Your task to perform on an android device: all mails in gmail Image 0: 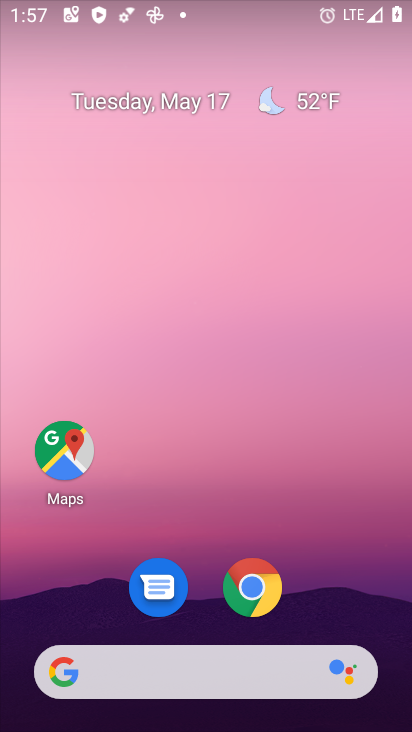
Step 0: drag from (360, 628) to (374, 134)
Your task to perform on an android device: all mails in gmail Image 1: 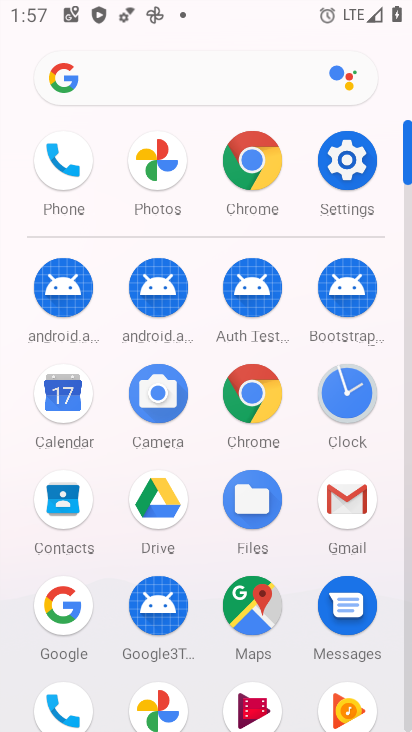
Step 1: click (338, 495)
Your task to perform on an android device: all mails in gmail Image 2: 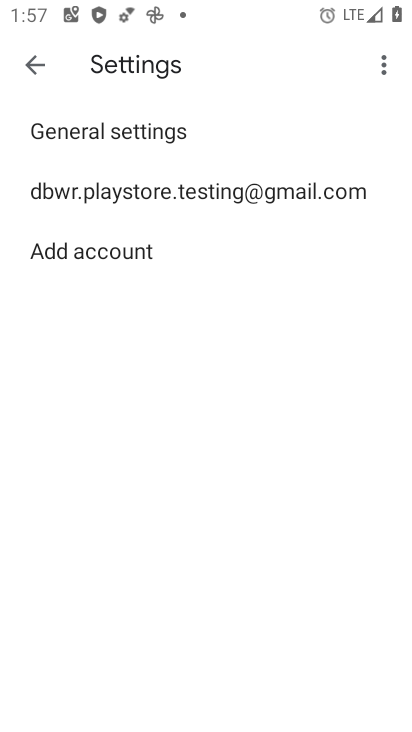
Step 2: press home button
Your task to perform on an android device: all mails in gmail Image 3: 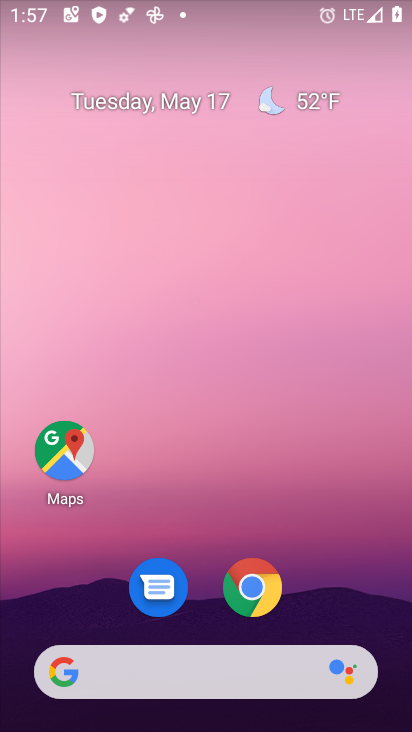
Step 3: drag from (351, 574) to (348, 173)
Your task to perform on an android device: all mails in gmail Image 4: 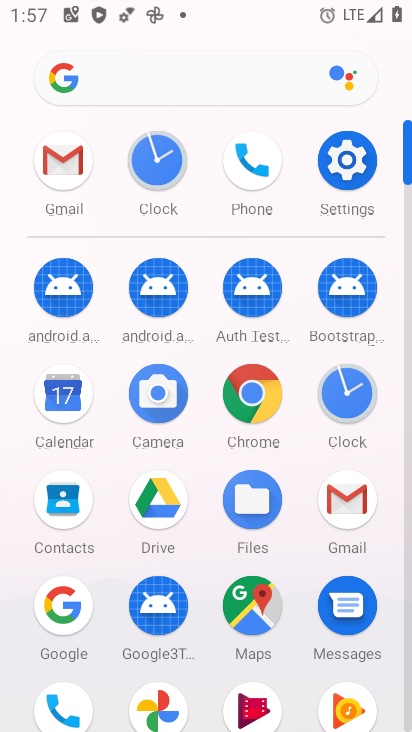
Step 4: click (67, 162)
Your task to perform on an android device: all mails in gmail Image 5: 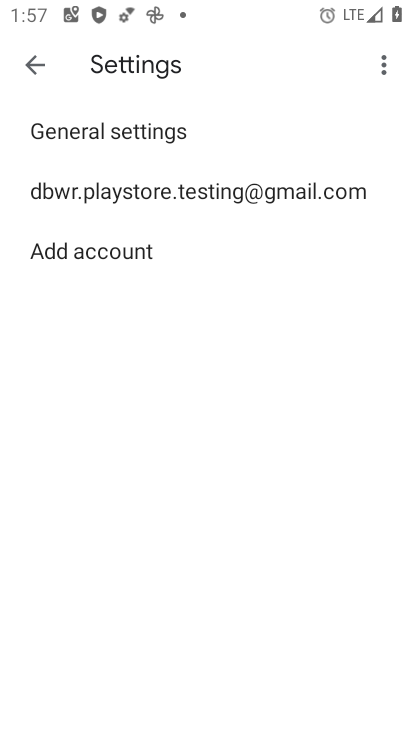
Step 5: click (24, 85)
Your task to perform on an android device: all mails in gmail Image 6: 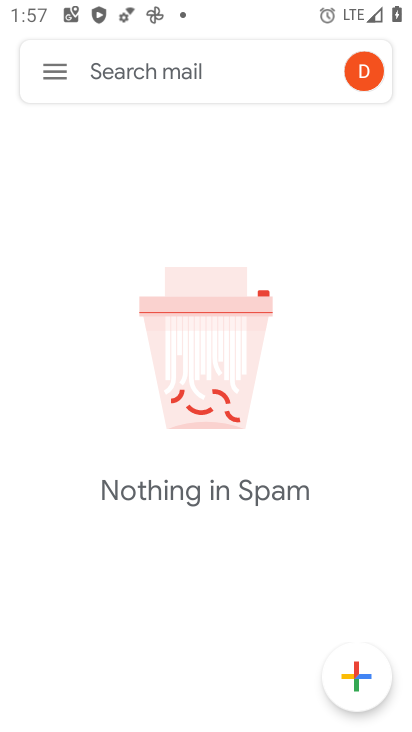
Step 6: click (41, 72)
Your task to perform on an android device: all mails in gmail Image 7: 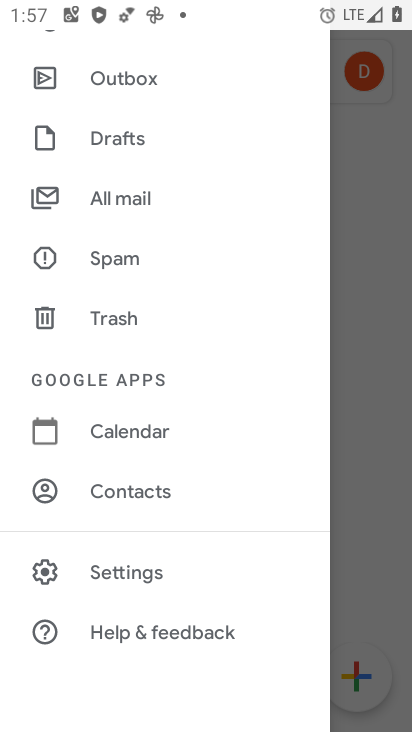
Step 7: click (143, 178)
Your task to perform on an android device: all mails in gmail Image 8: 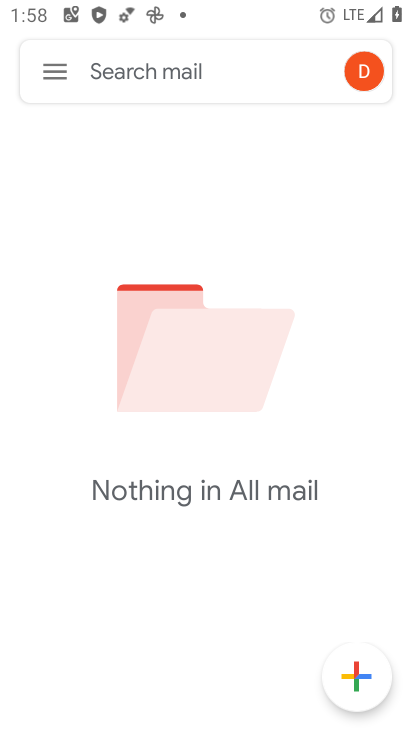
Step 8: task complete